Your task to perform on an android device: turn on javascript in the chrome app Image 0: 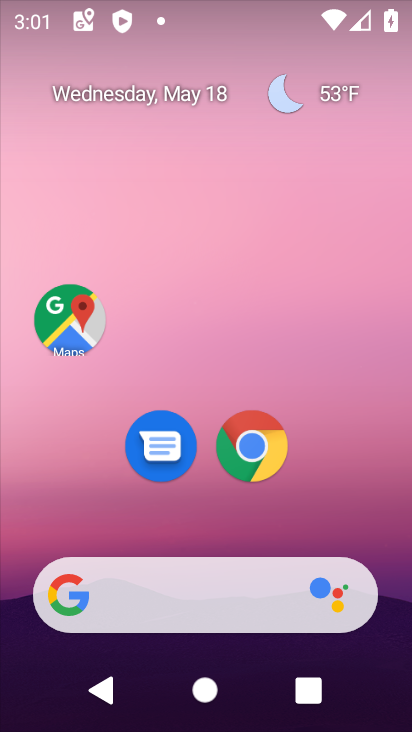
Step 0: click (273, 444)
Your task to perform on an android device: turn on javascript in the chrome app Image 1: 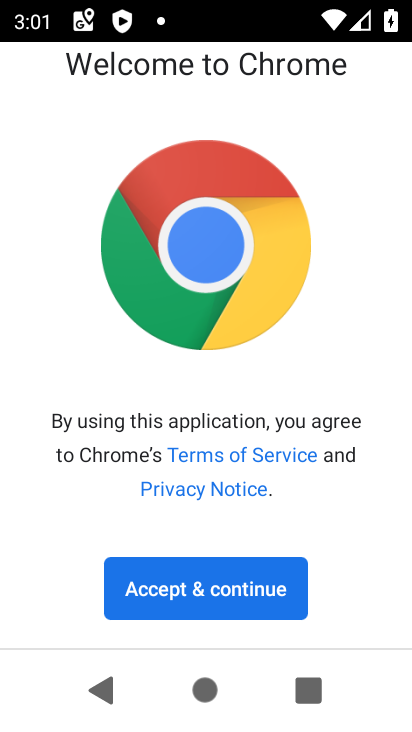
Step 1: click (168, 573)
Your task to perform on an android device: turn on javascript in the chrome app Image 2: 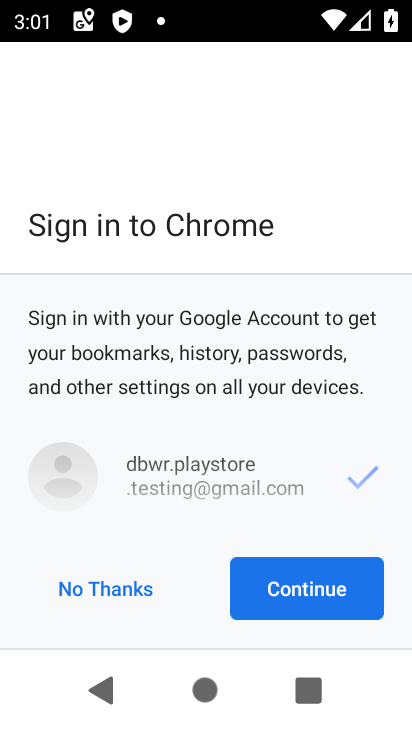
Step 2: click (320, 584)
Your task to perform on an android device: turn on javascript in the chrome app Image 3: 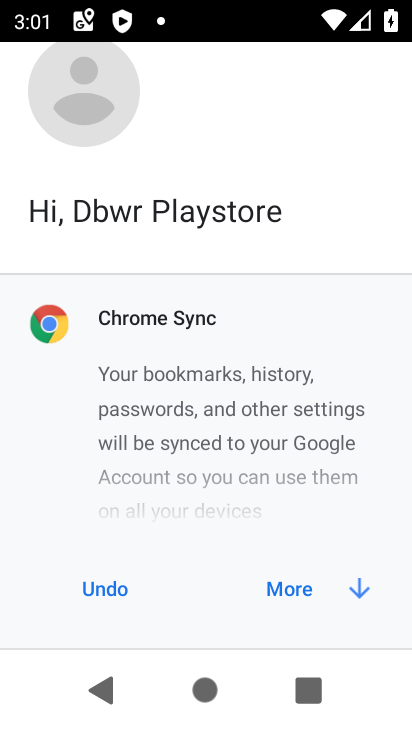
Step 3: click (318, 584)
Your task to perform on an android device: turn on javascript in the chrome app Image 4: 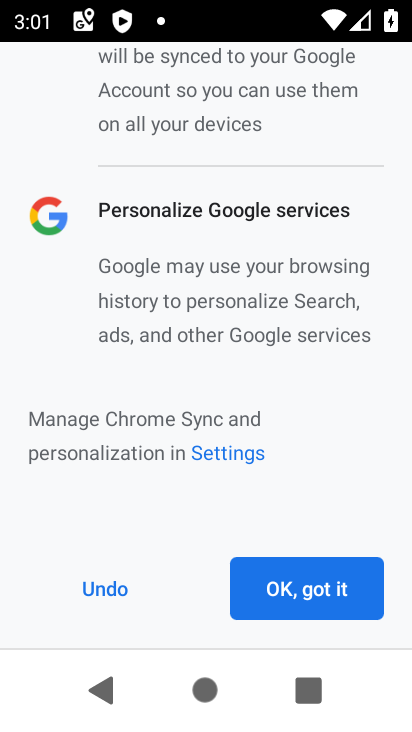
Step 4: click (318, 584)
Your task to perform on an android device: turn on javascript in the chrome app Image 5: 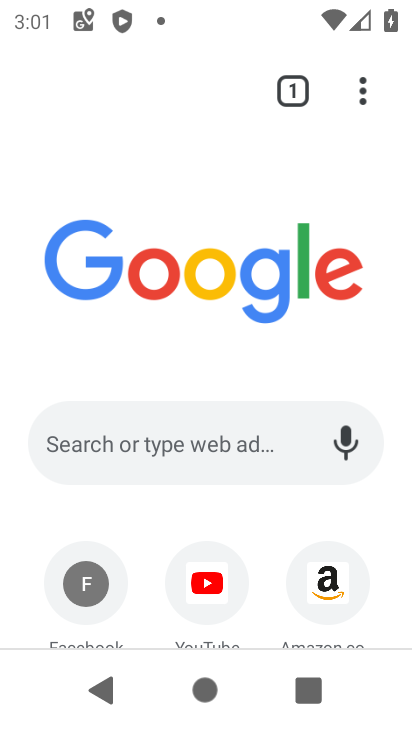
Step 5: click (356, 86)
Your task to perform on an android device: turn on javascript in the chrome app Image 6: 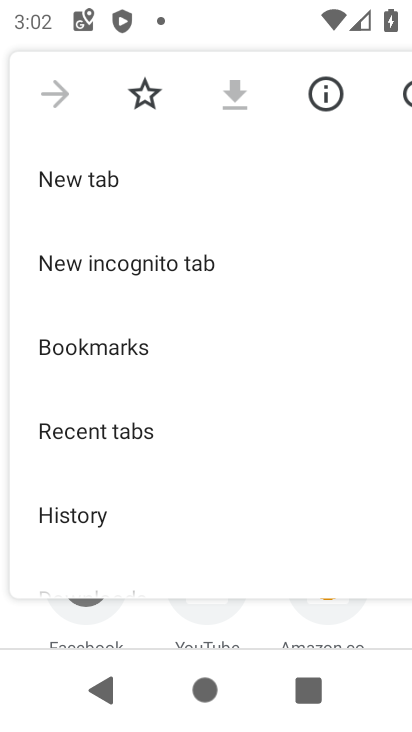
Step 6: drag from (148, 553) to (153, 133)
Your task to perform on an android device: turn on javascript in the chrome app Image 7: 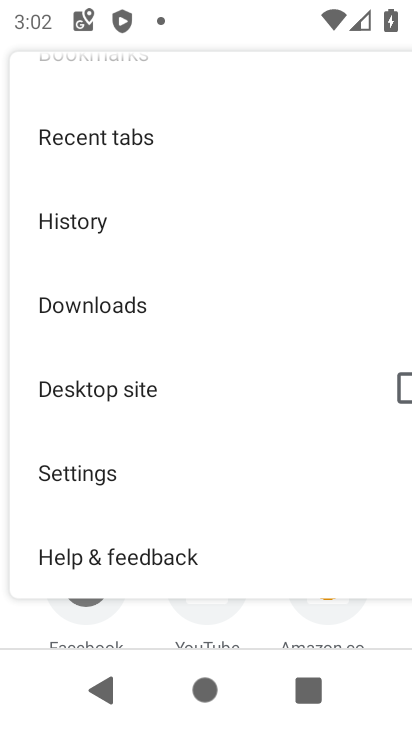
Step 7: click (124, 464)
Your task to perform on an android device: turn on javascript in the chrome app Image 8: 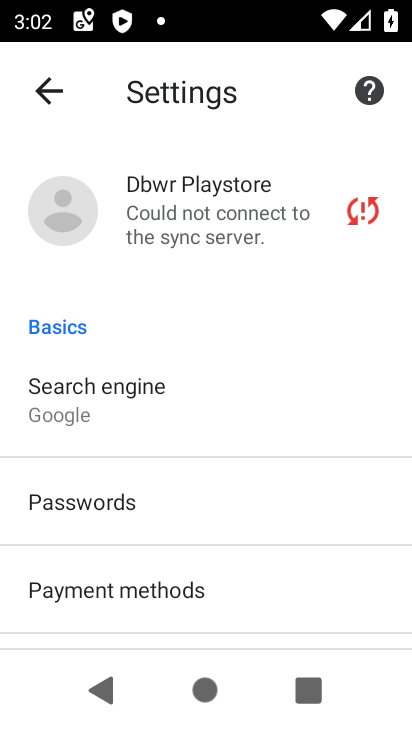
Step 8: drag from (107, 522) to (116, 190)
Your task to perform on an android device: turn on javascript in the chrome app Image 9: 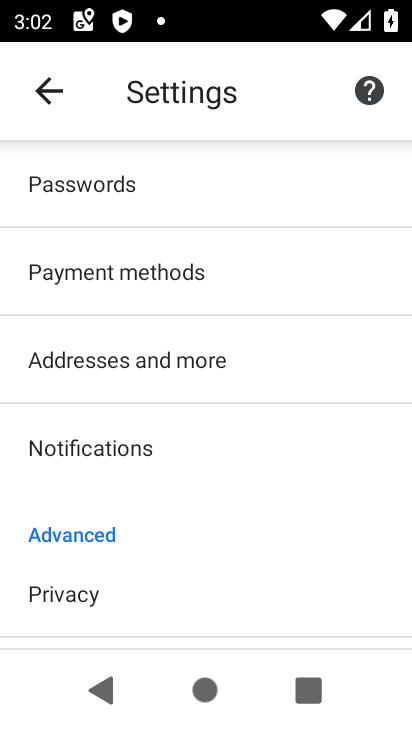
Step 9: drag from (136, 592) to (160, 265)
Your task to perform on an android device: turn on javascript in the chrome app Image 10: 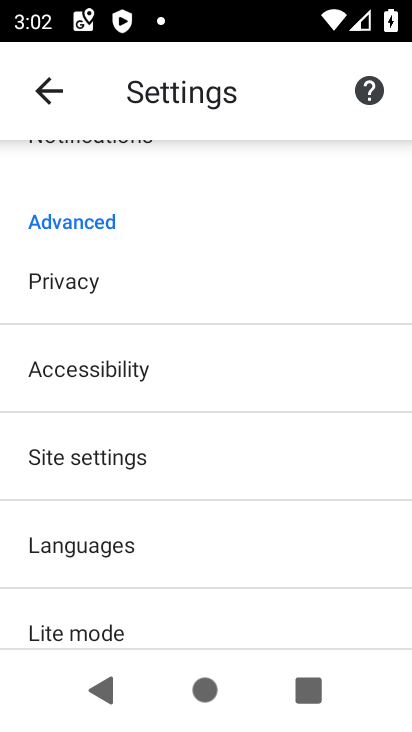
Step 10: click (147, 447)
Your task to perform on an android device: turn on javascript in the chrome app Image 11: 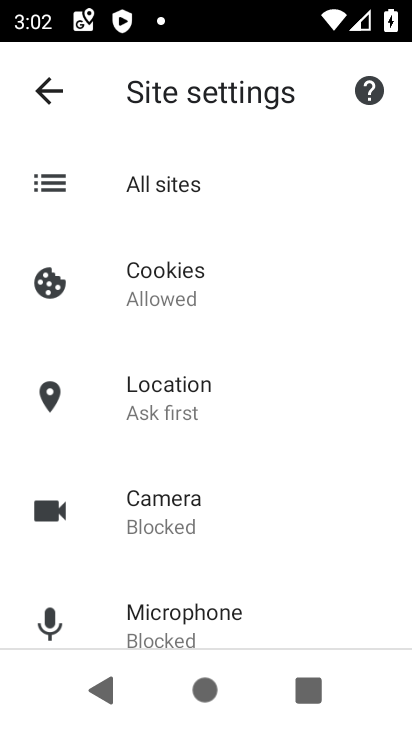
Step 11: task complete